Your task to perform on an android device: Search for pizza restaurants on Maps Image 0: 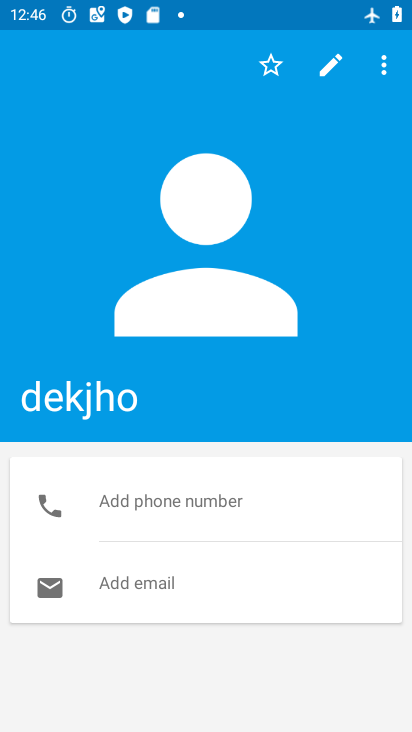
Step 0: press home button
Your task to perform on an android device: Search for pizza restaurants on Maps Image 1: 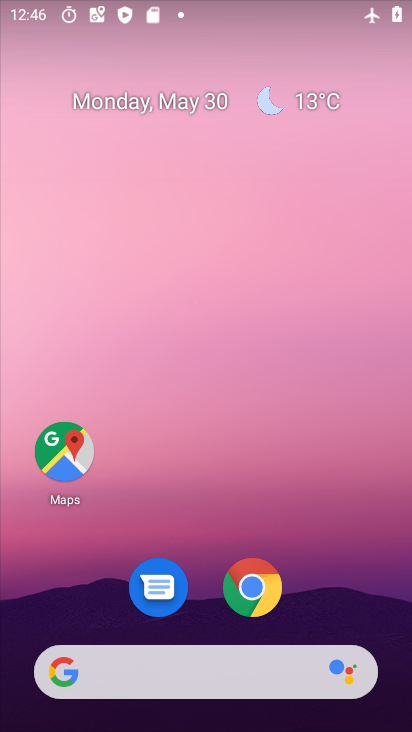
Step 1: click (62, 451)
Your task to perform on an android device: Search for pizza restaurants on Maps Image 2: 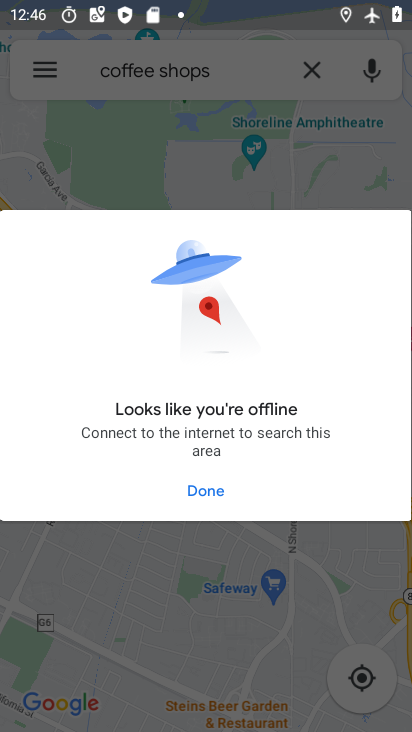
Step 2: task complete